Your task to perform on an android device: set an alarm Image 0: 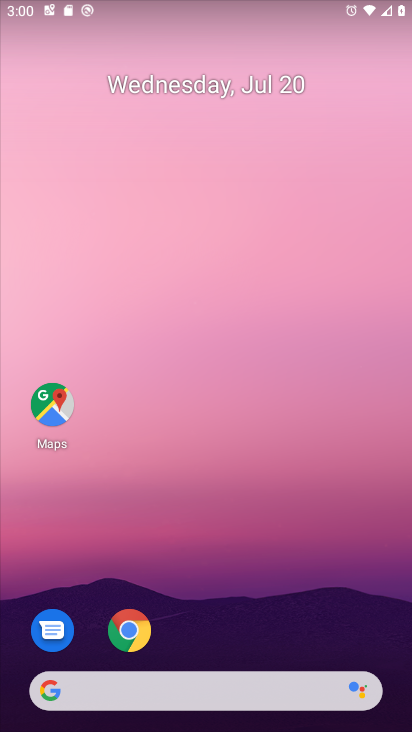
Step 0: press home button
Your task to perform on an android device: set an alarm Image 1: 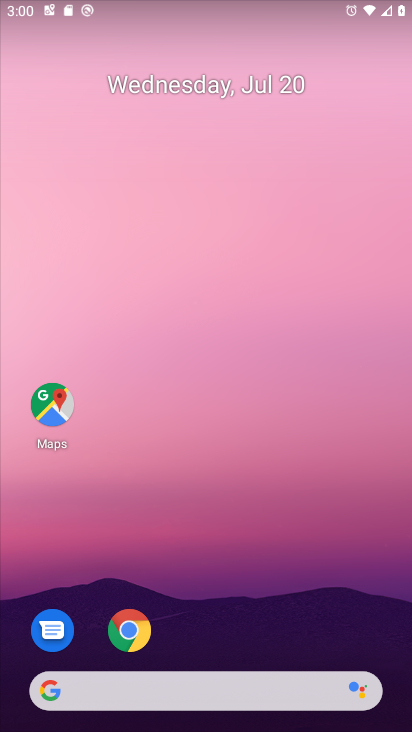
Step 1: drag from (270, 625) to (246, 181)
Your task to perform on an android device: set an alarm Image 2: 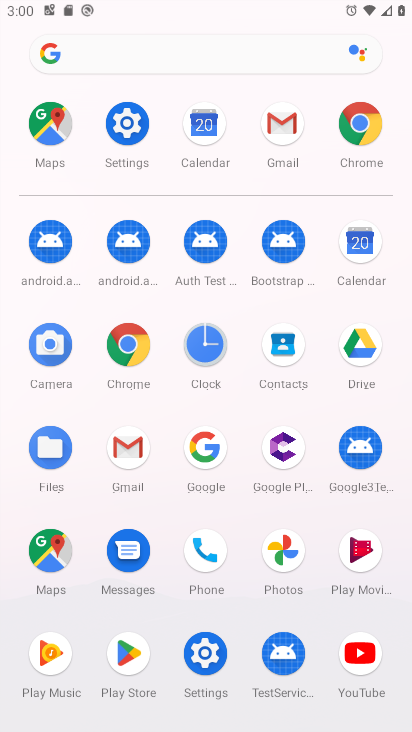
Step 2: click (209, 362)
Your task to perform on an android device: set an alarm Image 3: 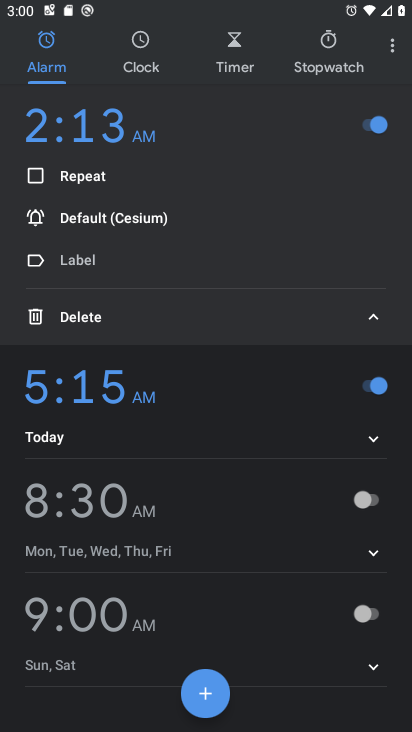
Step 3: click (189, 691)
Your task to perform on an android device: set an alarm Image 4: 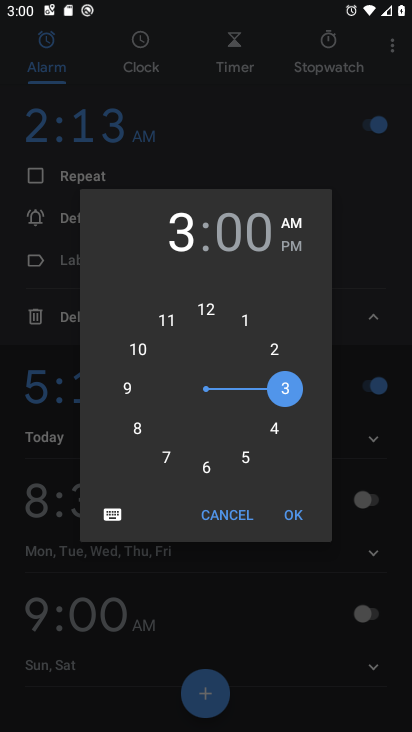
Step 4: click (298, 511)
Your task to perform on an android device: set an alarm Image 5: 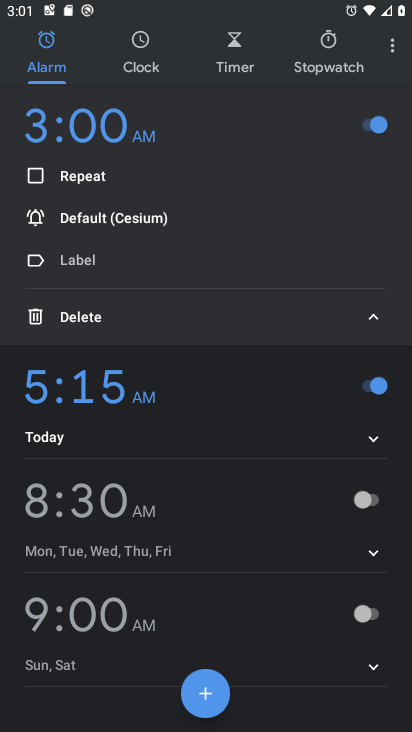
Step 5: task complete